Your task to perform on an android device: Open privacy settings Image 0: 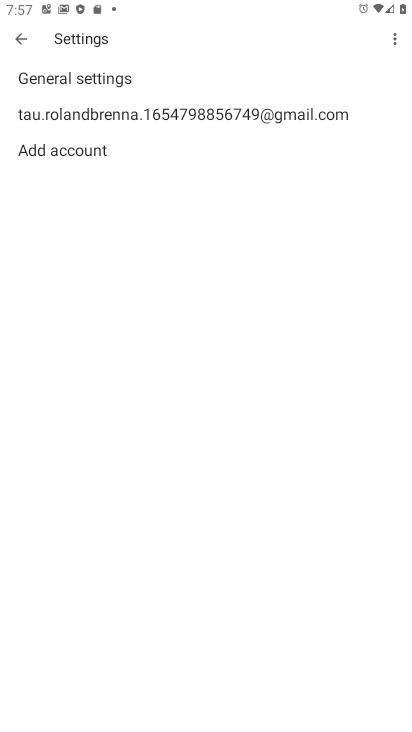
Step 0: press home button
Your task to perform on an android device: Open privacy settings Image 1: 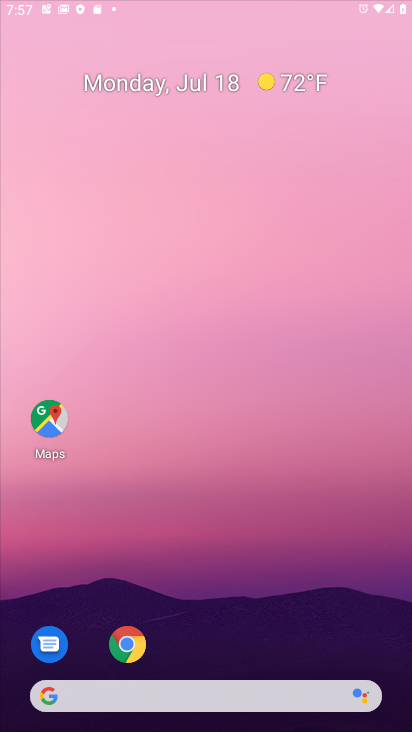
Step 1: drag from (375, 692) to (238, 8)
Your task to perform on an android device: Open privacy settings Image 2: 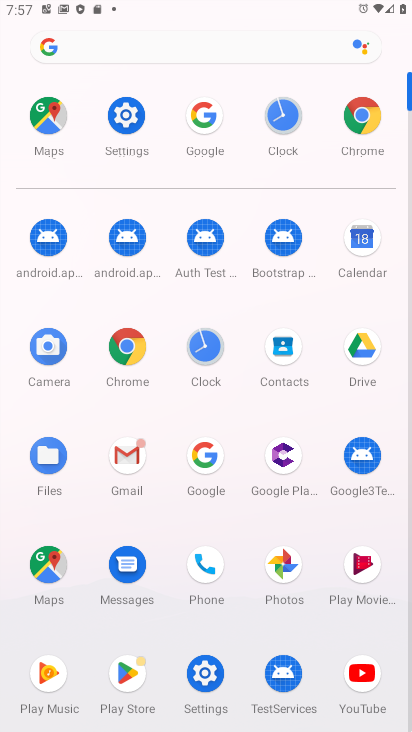
Step 2: click (198, 668)
Your task to perform on an android device: Open privacy settings Image 3: 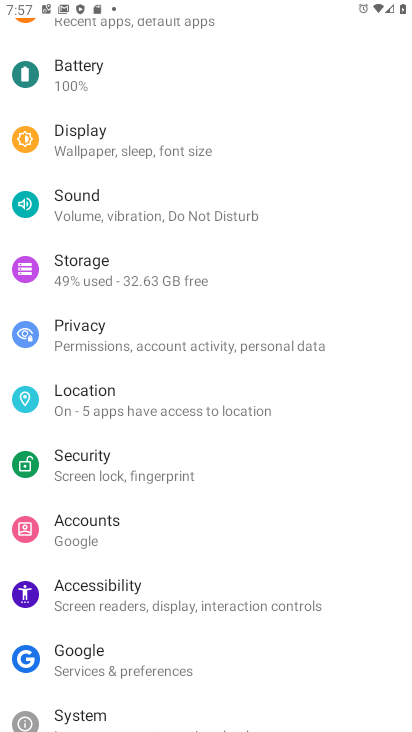
Step 3: click (81, 338)
Your task to perform on an android device: Open privacy settings Image 4: 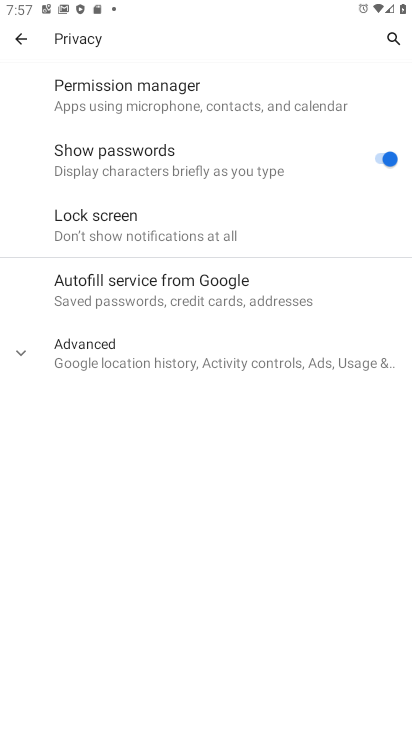
Step 4: task complete